Your task to perform on an android device: Check the news Image 0: 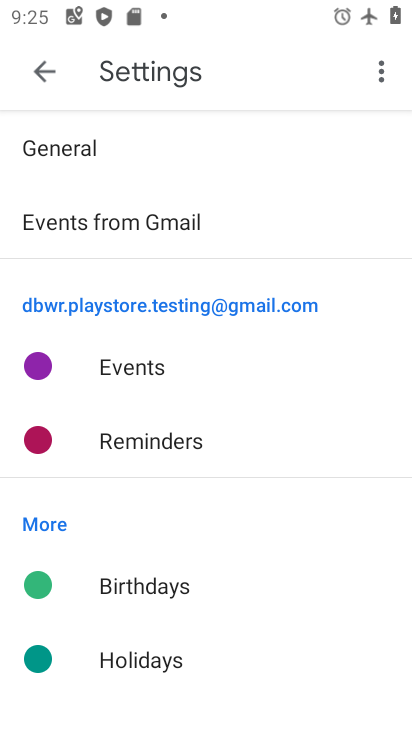
Step 0: press home button
Your task to perform on an android device: Check the news Image 1: 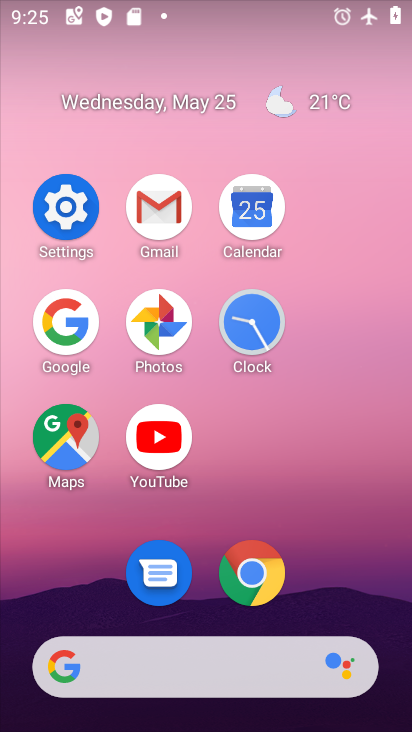
Step 1: click (81, 327)
Your task to perform on an android device: Check the news Image 2: 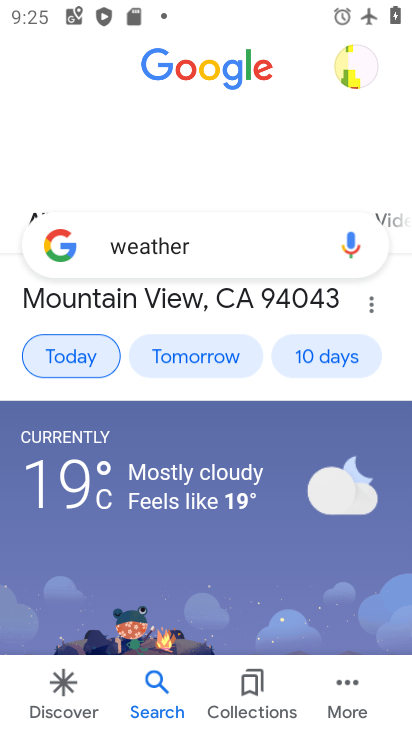
Step 2: click (209, 251)
Your task to perform on an android device: Check the news Image 3: 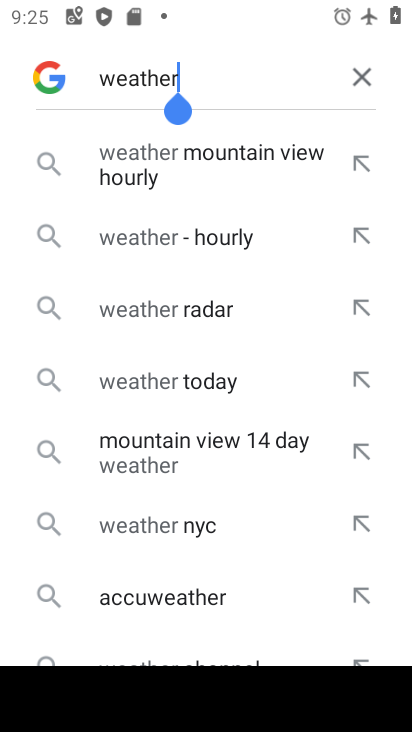
Step 3: click (381, 76)
Your task to perform on an android device: Check the news Image 4: 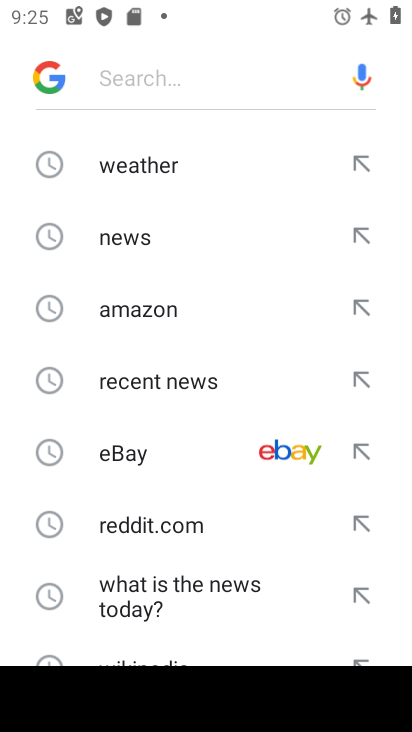
Step 4: click (147, 237)
Your task to perform on an android device: Check the news Image 5: 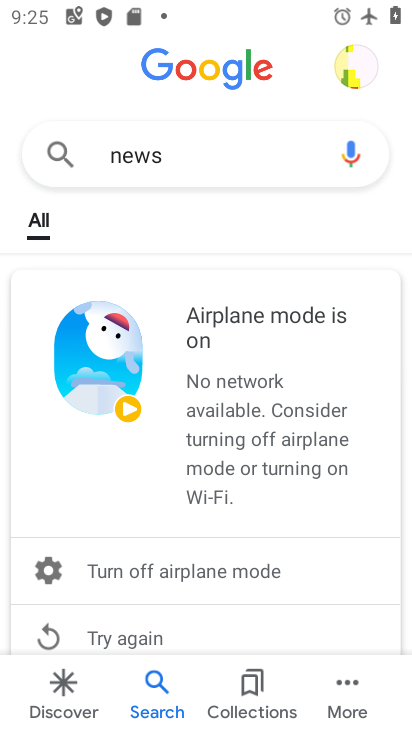
Step 5: task complete